Your task to perform on an android device: create a new album in the google photos Image 0: 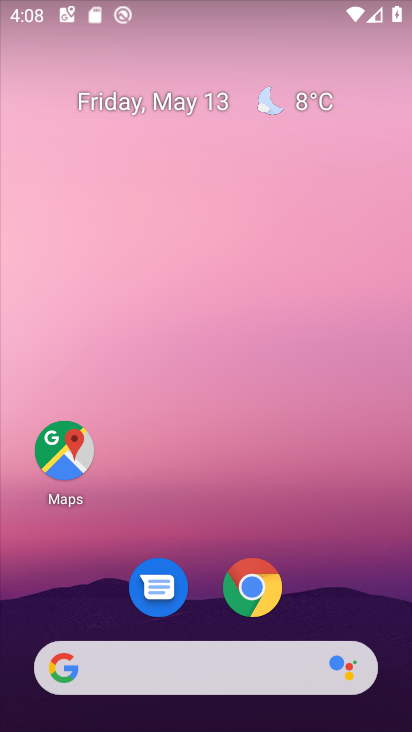
Step 0: drag from (207, 631) to (201, 326)
Your task to perform on an android device: create a new album in the google photos Image 1: 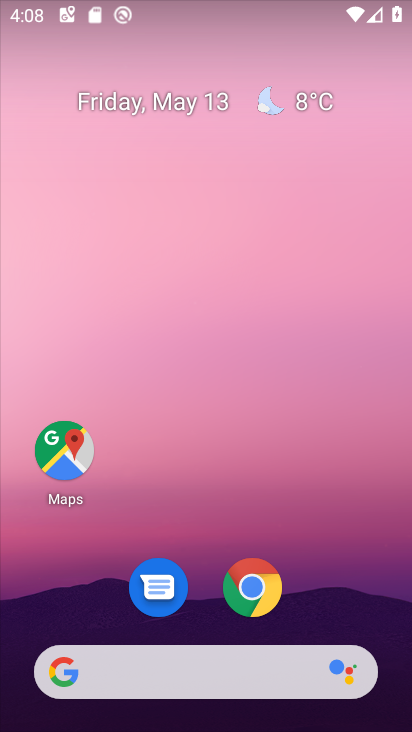
Step 1: drag from (202, 616) to (208, 233)
Your task to perform on an android device: create a new album in the google photos Image 2: 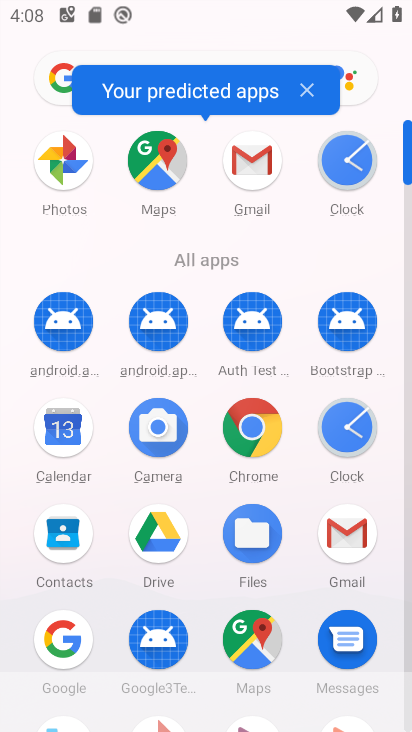
Step 2: drag from (198, 612) to (205, 394)
Your task to perform on an android device: create a new album in the google photos Image 3: 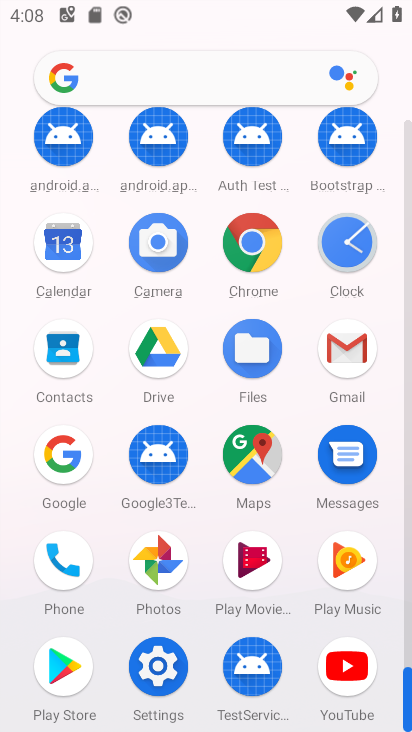
Step 3: drag from (181, 290) to (201, 513)
Your task to perform on an android device: create a new album in the google photos Image 4: 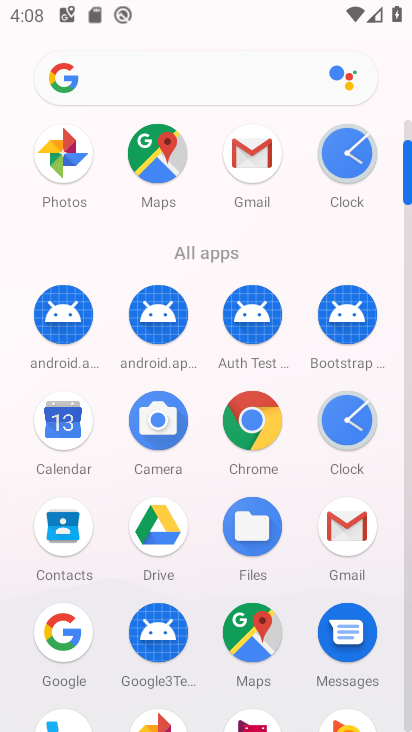
Step 4: click (73, 162)
Your task to perform on an android device: create a new album in the google photos Image 5: 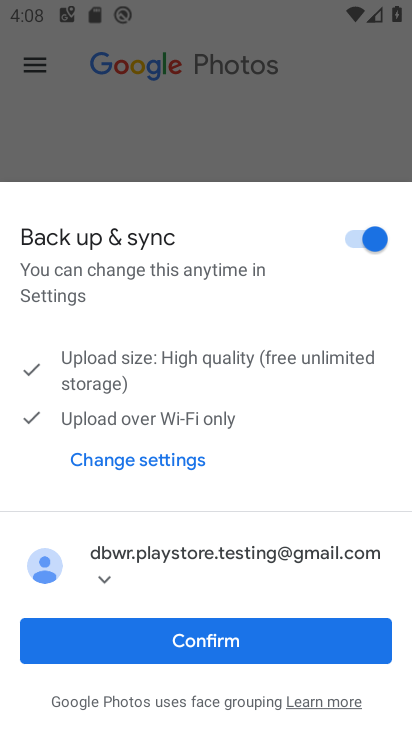
Step 5: click (279, 647)
Your task to perform on an android device: create a new album in the google photos Image 6: 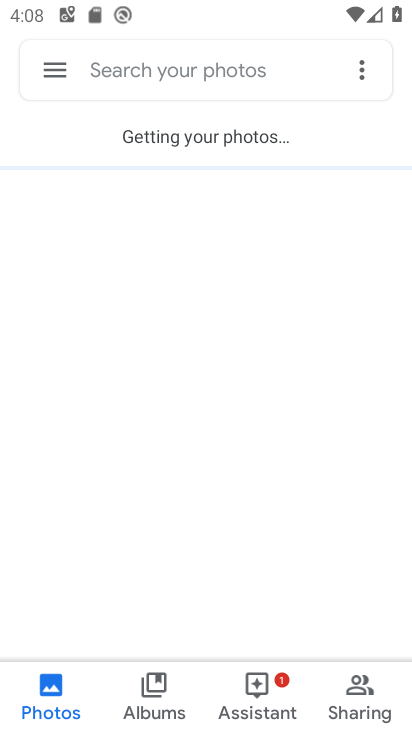
Step 6: click (360, 82)
Your task to perform on an android device: create a new album in the google photos Image 7: 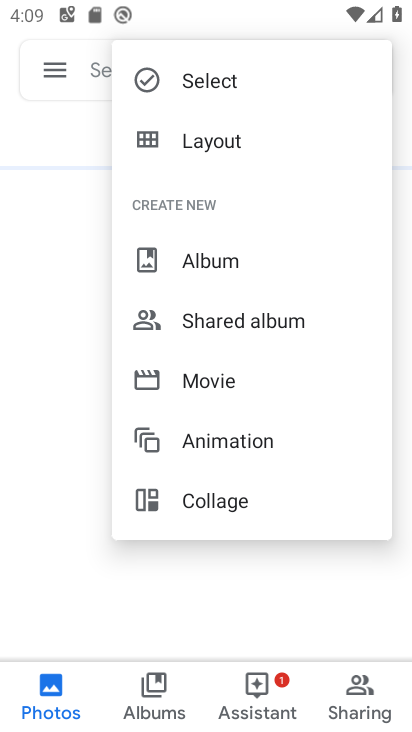
Step 7: click (219, 247)
Your task to perform on an android device: create a new album in the google photos Image 8: 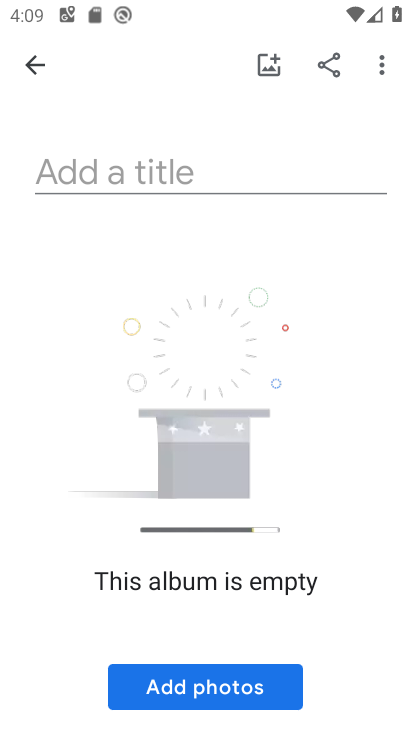
Step 8: click (212, 174)
Your task to perform on an android device: create a new album in the google photos Image 9: 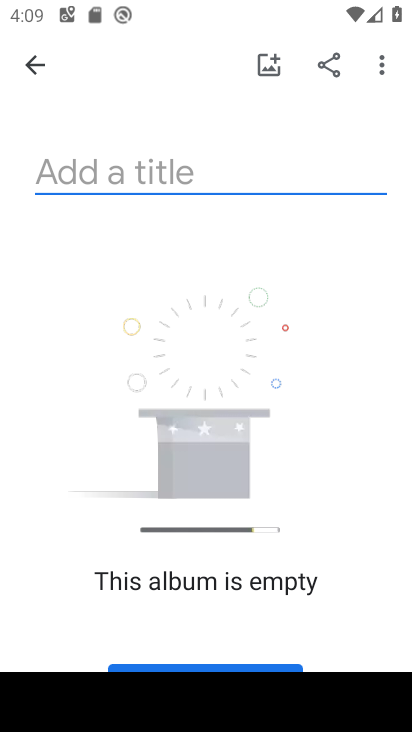
Step 9: type "jhfu"
Your task to perform on an android device: create a new album in the google photos Image 10: 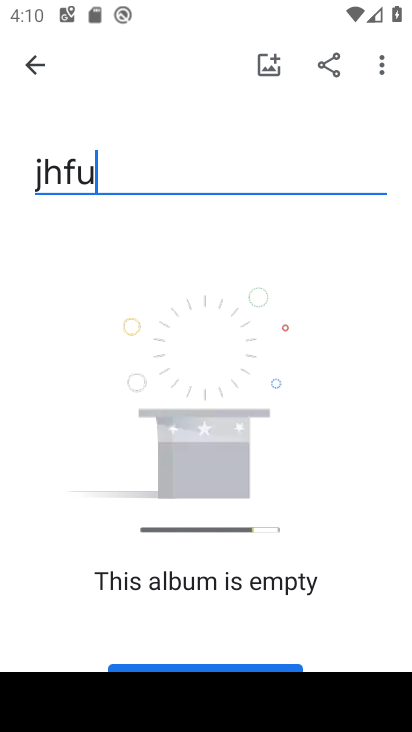
Step 10: drag from (254, 607) to (256, 325)
Your task to perform on an android device: create a new album in the google photos Image 11: 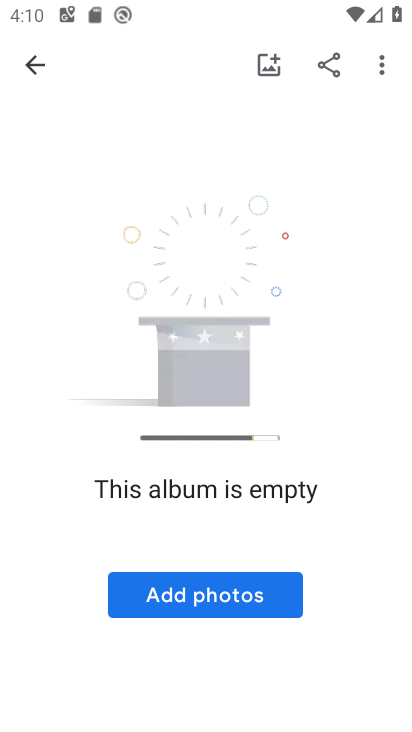
Step 11: click (185, 583)
Your task to perform on an android device: create a new album in the google photos Image 12: 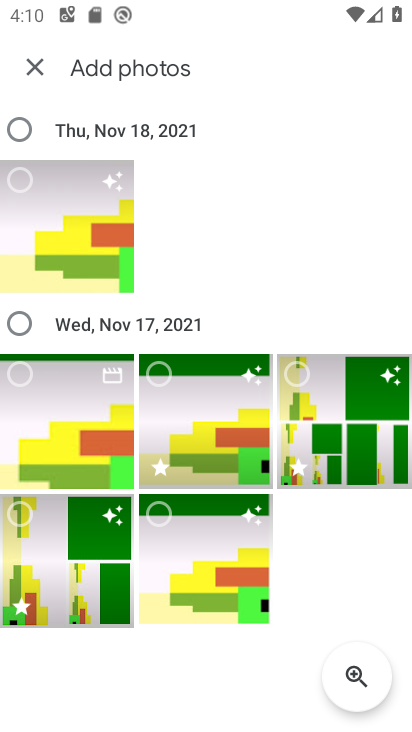
Step 12: click (85, 260)
Your task to perform on an android device: create a new album in the google photos Image 13: 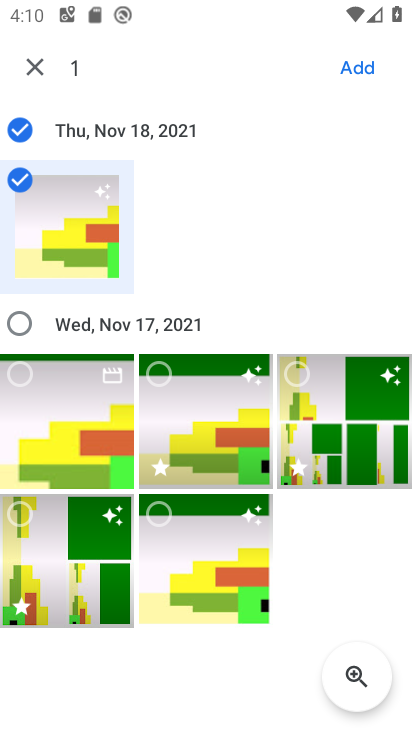
Step 13: task complete